Your task to perform on an android device: toggle pop-ups in chrome Image 0: 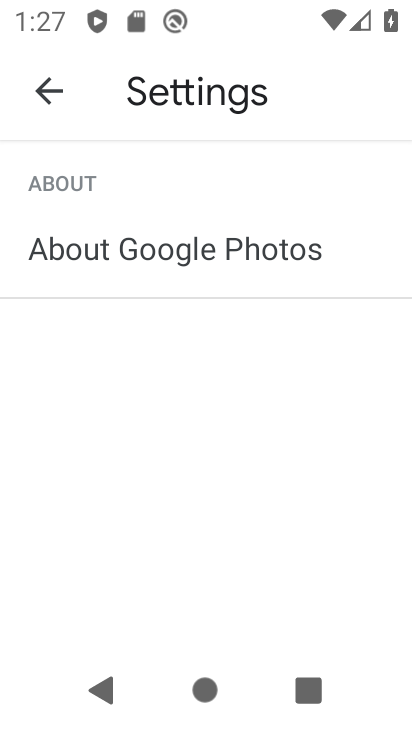
Step 0: press home button
Your task to perform on an android device: toggle pop-ups in chrome Image 1: 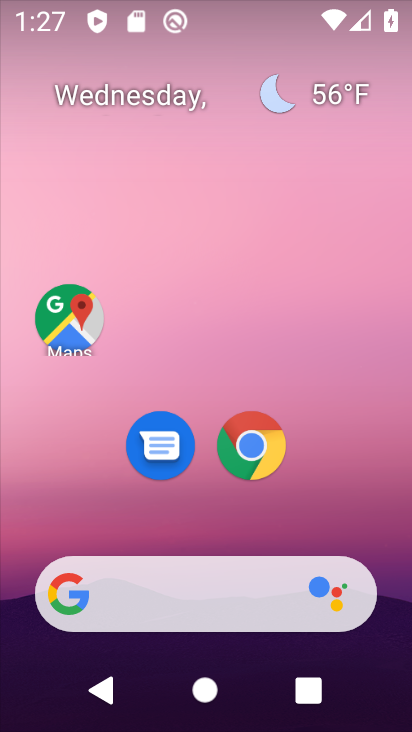
Step 1: click (253, 452)
Your task to perform on an android device: toggle pop-ups in chrome Image 2: 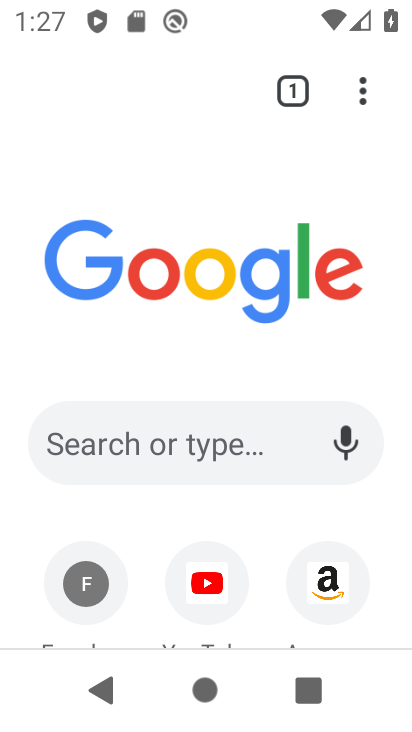
Step 2: click (359, 106)
Your task to perform on an android device: toggle pop-ups in chrome Image 3: 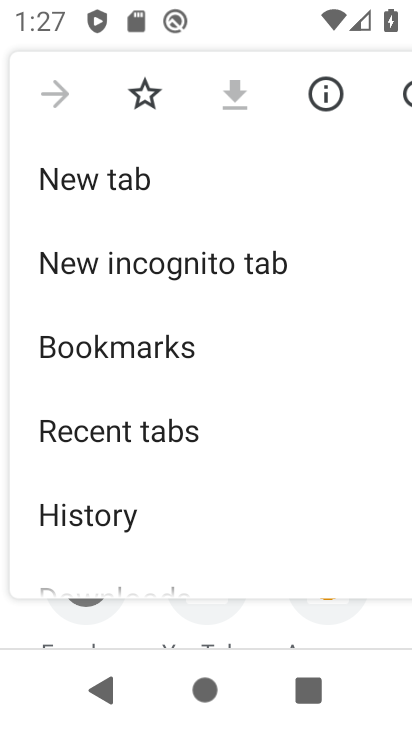
Step 3: drag from (129, 516) to (96, 26)
Your task to perform on an android device: toggle pop-ups in chrome Image 4: 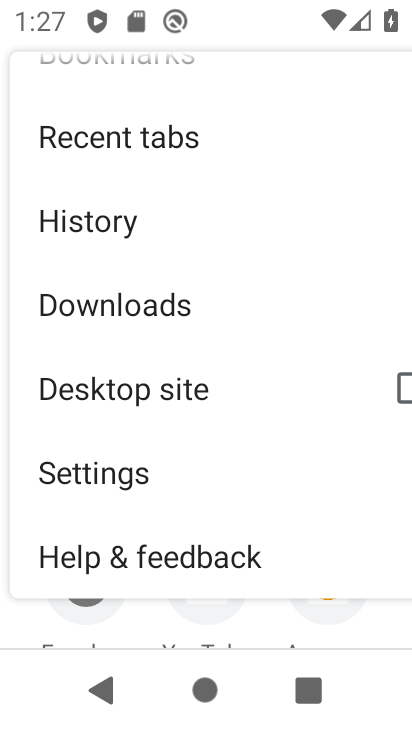
Step 4: click (79, 498)
Your task to perform on an android device: toggle pop-ups in chrome Image 5: 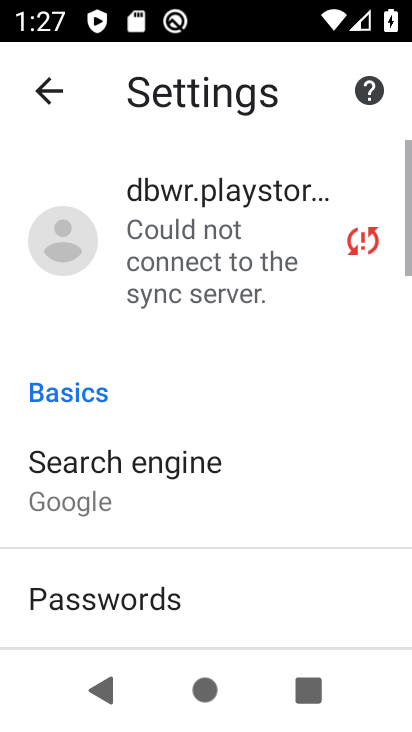
Step 5: drag from (119, 577) to (101, 45)
Your task to perform on an android device: toggle pop-ups in chrome Image 6: 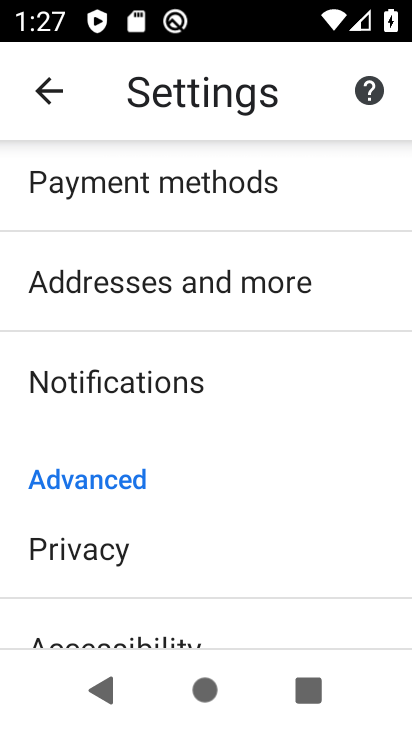
Step 6: drag from (146, 582) to (84, 158)
Your task to perform on an android device: toggle pop-ups in chrome Image 7: 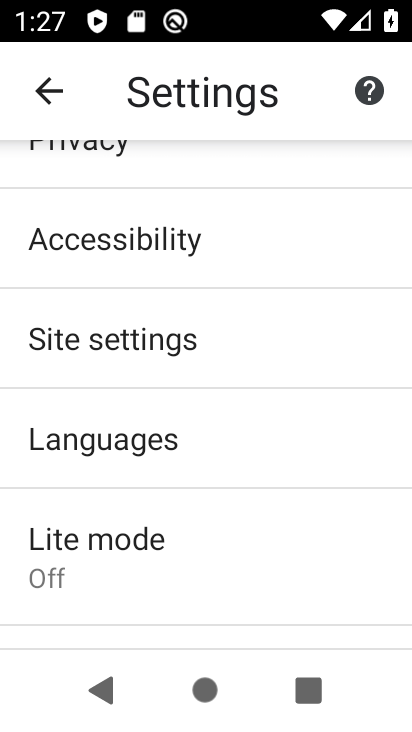
Step 7: click (71, 343)
Your task to perform on an android device: toggle pop-ups in chrome Image 8: 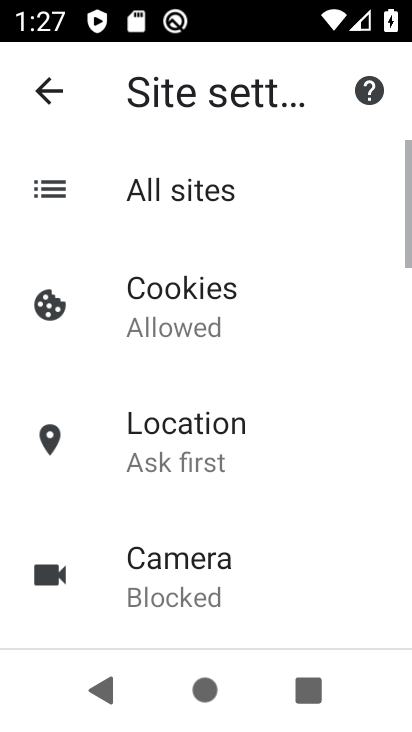
Step 8: drag from (170, 489) to (143, 42)
Your task to perform on an android device: toggle pop-ups in chrome Image 9: 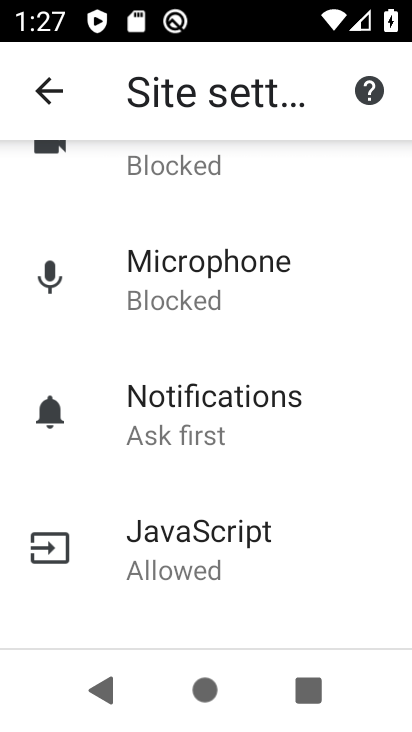
Step 9: drag from (202, 515) to (187, 173)
Your task to perform on an android device: toggle pop-ups in chrome Image 10: 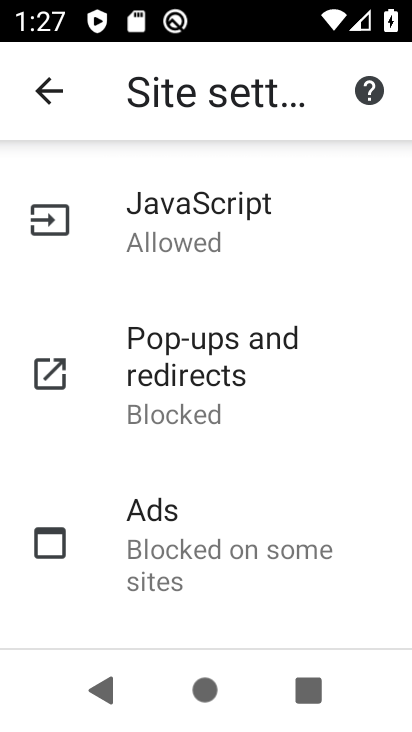
Step 10: click (188, 374)
Your task to perform on an android device: toggle pop-ups in chrome Image 11: 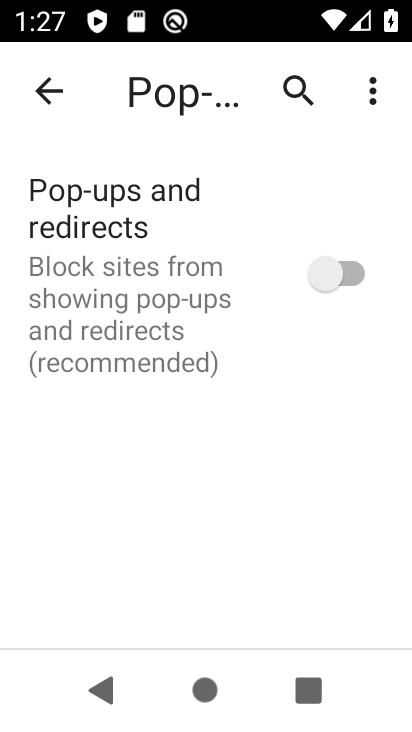
Step 11: click (359, 261)
Your task to perform on an android device: toggle pop-ups in chrome Image 12: 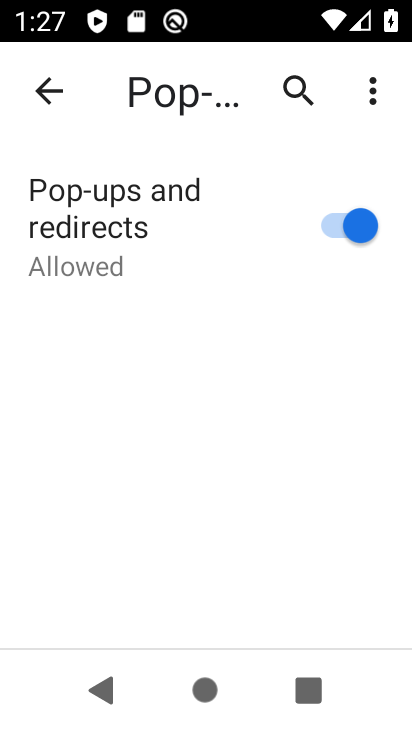
Step 12: task complete